Your task to perform on an android device: What's on my calendar today? Image 0: 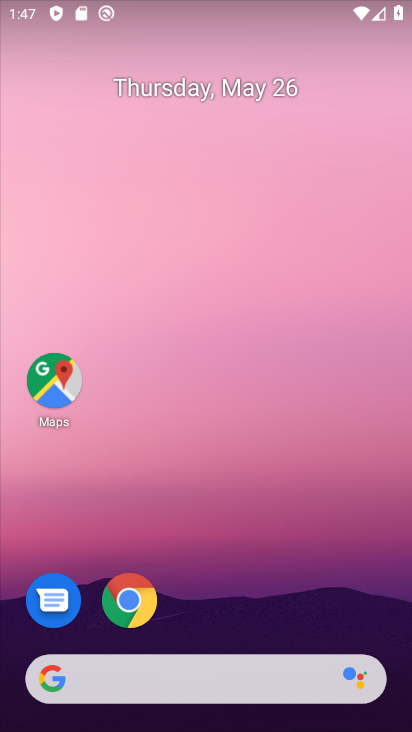
Step 0: click (207, 112)
Your task to perform on an android device: What's on my calendar today? Image 1: 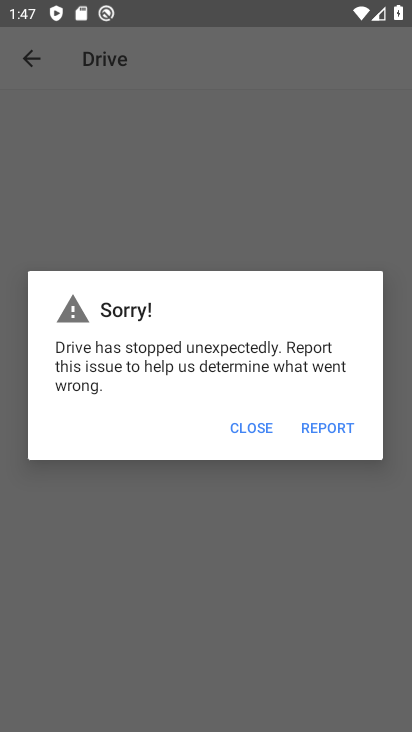
Step 1: press home button
Your task to perform on an android device: What's on my calendar today? Image 2: 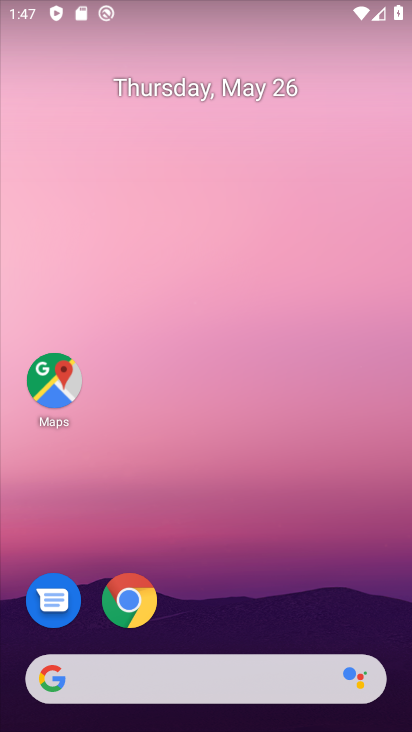
Step 2: drag from (201, 594) to (130, 50)
Your task to perform on an android device: What's on my calendar today? Image 3: 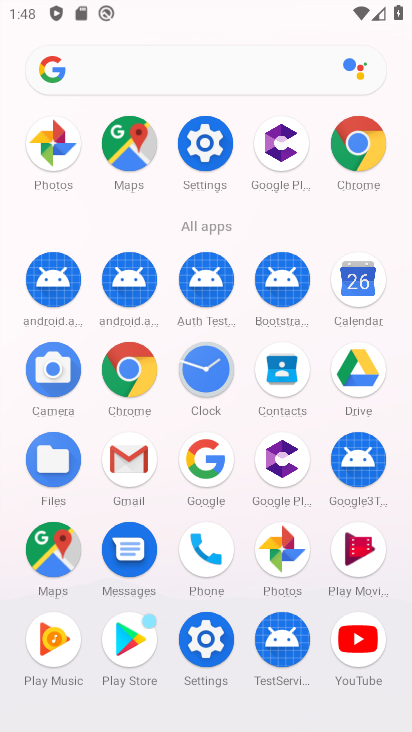
Step 3: drag from (6, 611) to (19, 300)
Your task to perform on an android device: What's on my calendar today? Image 4: 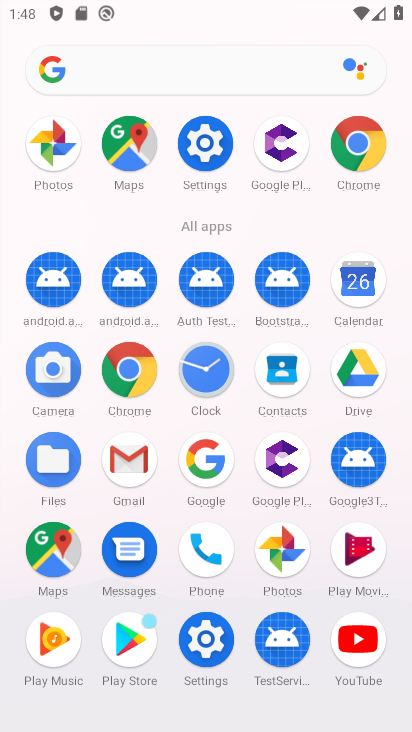
Step 4: click (355, 275)
Your task to perform on an android device: What's on my calendar today? Image 5: 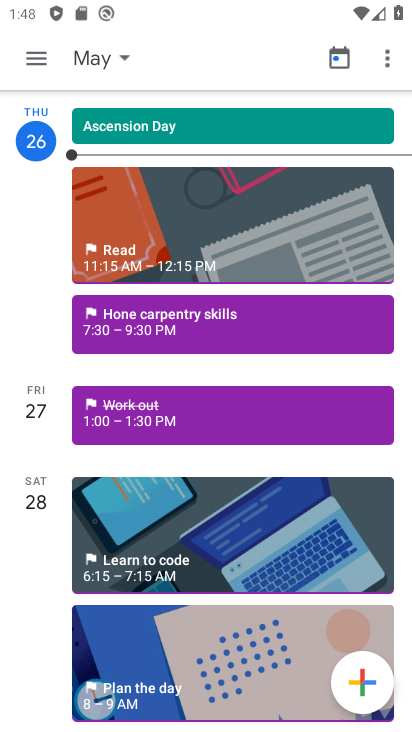
Step 5: click (341, 60)
Your task to perform on an android device: What's on my calendar today? Image 6: 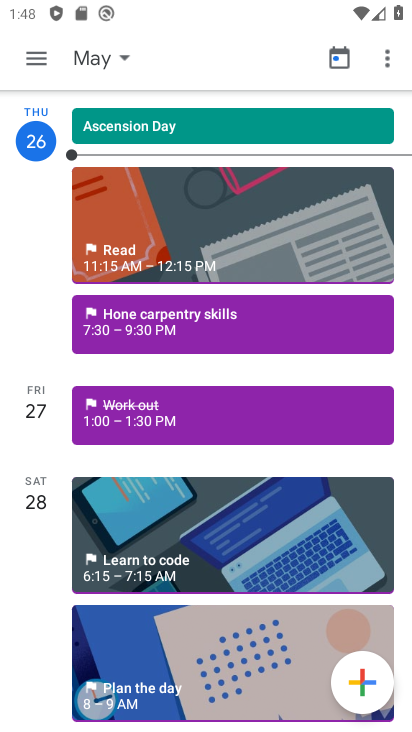
Step 6: task complete